Your task to perform on an android device: open wifi settings Image 0: 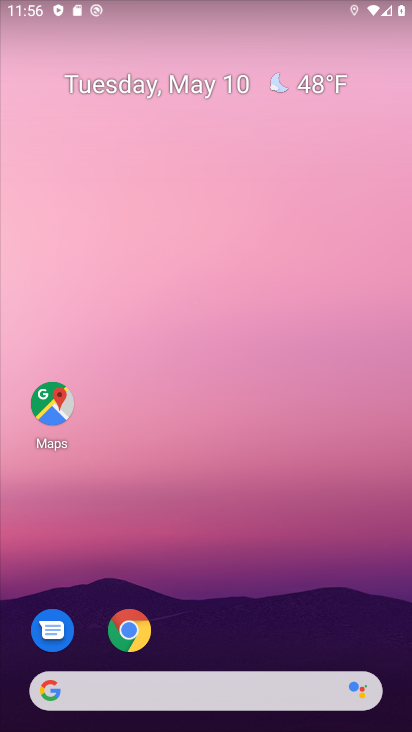
Step 0: drag from (250, 658) to (158, 1)
Your task to perform on an android device: open wifi settings Image 1: 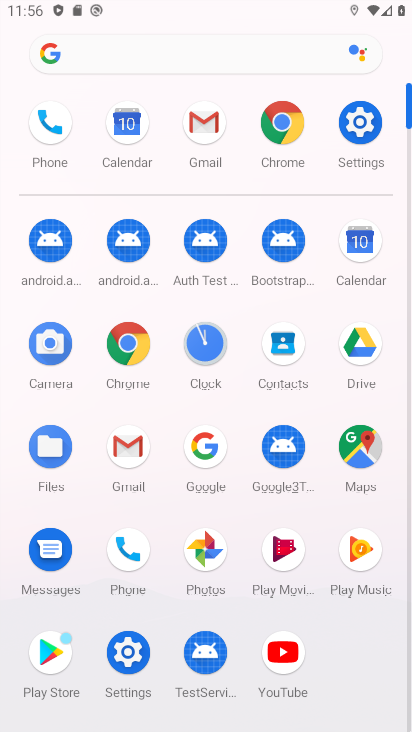
Step 1: click (363, 129)
Your task to perform on an android device: open wifi settings Image 2: 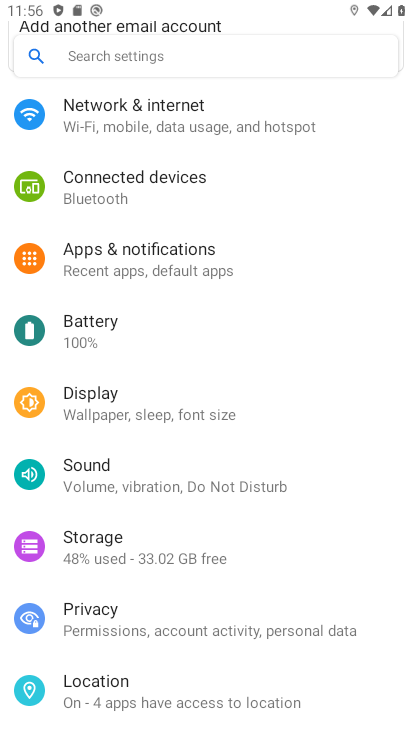
Step 2: drag from (317, 206) to (279, 479)
Your task to perform on an android device: open wifi settings Image 3: 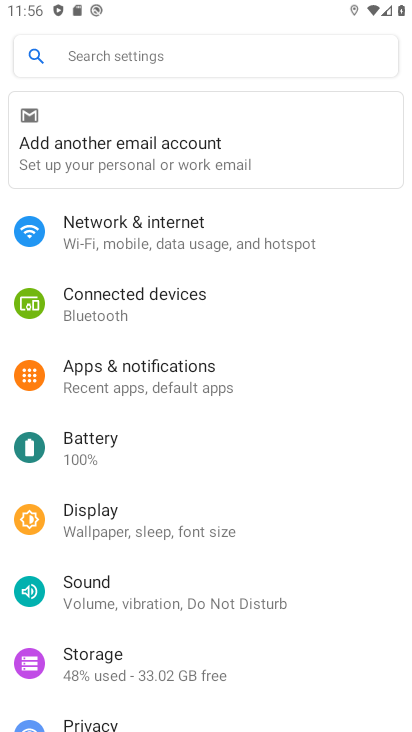
Step 3: click (183, 258)
Your task to perform on an android device: open wifi settings Image 4: 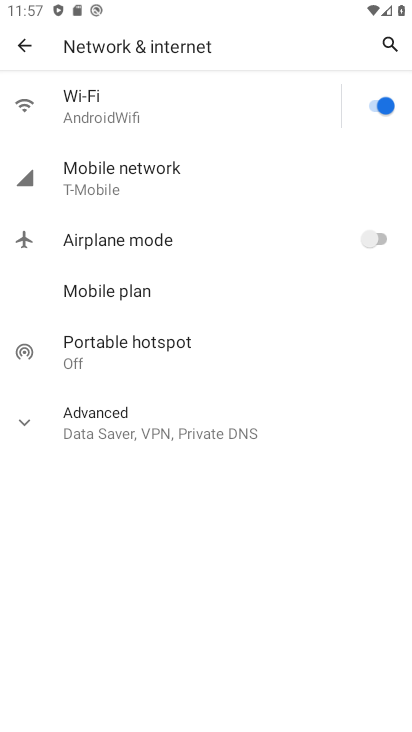
Step 4: click (96, 122)
Your task to perform on an android device: open wifi settings Image 5: 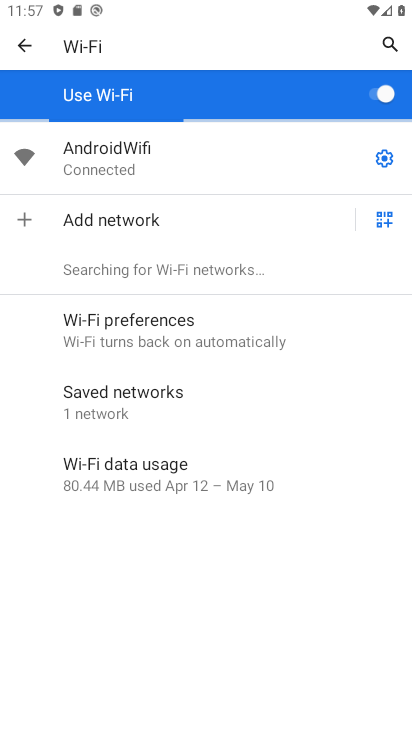
Step 5: task complete